Your task to perform on an android device: Open internet settings Image 0: 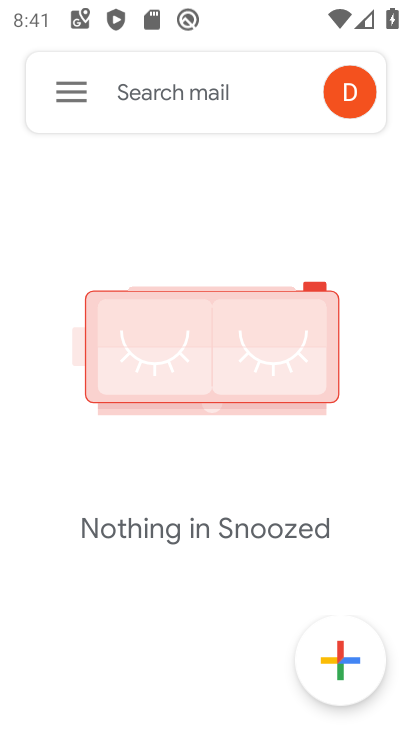
Step 0: press home button
Your task to perform on an android device: Open internet settings Image 1: 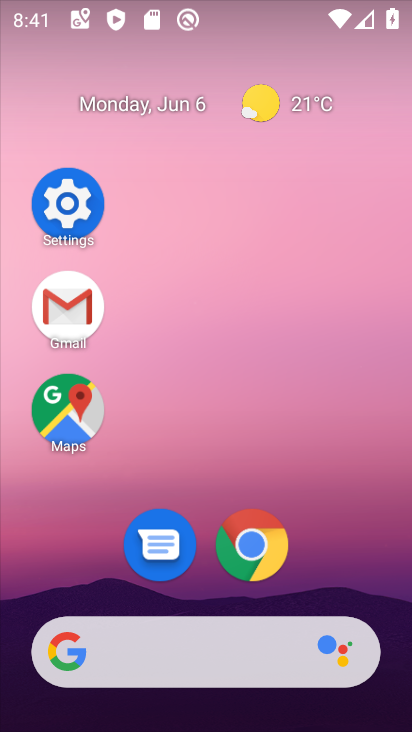
Step 1: click (62, 187)
Your task to perform on an android device: Open internet settings Image 2: 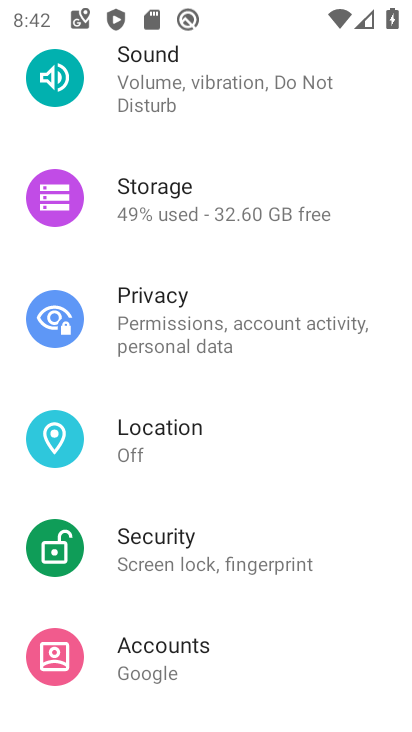
Step 2: drag from (213, 114) to (250, 607)
Your task to perform on an android device: Open internet settings Image 3: 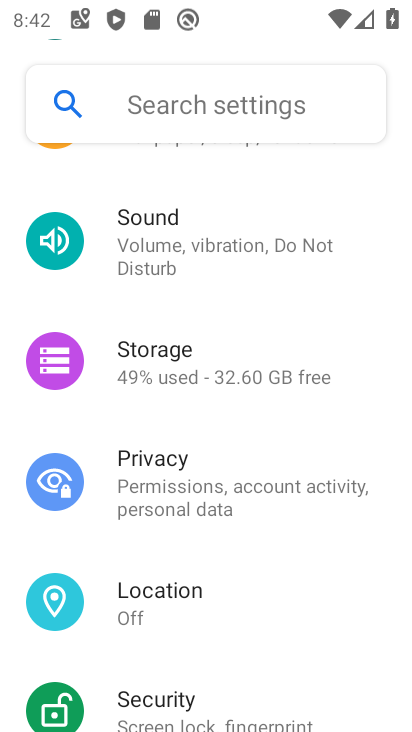
Step 3: drag from (281, 177) to (291, 658)
Your task to perform on an android device: Open internet settings Image 4: 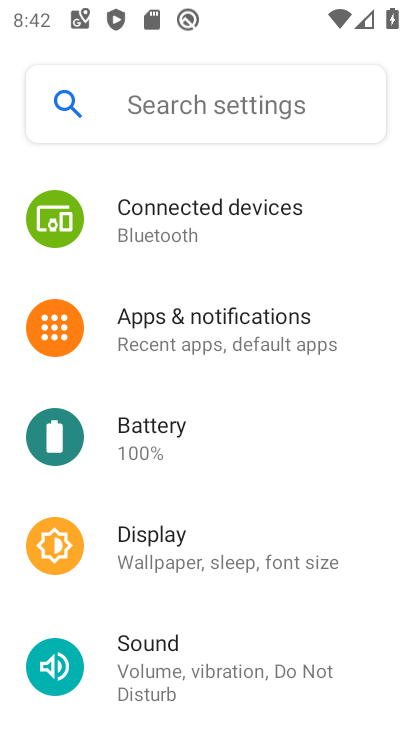
Step 4: drag from (275, 181) to (272, 593)
Your task to perform on an android device: Open internet settings Image 5: 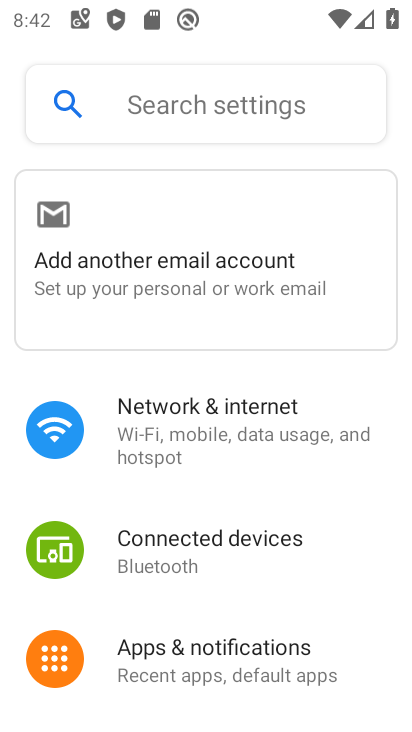
Step 5: click (216, 412)
Your task to perform on an android device: Open internet settings Image 6: 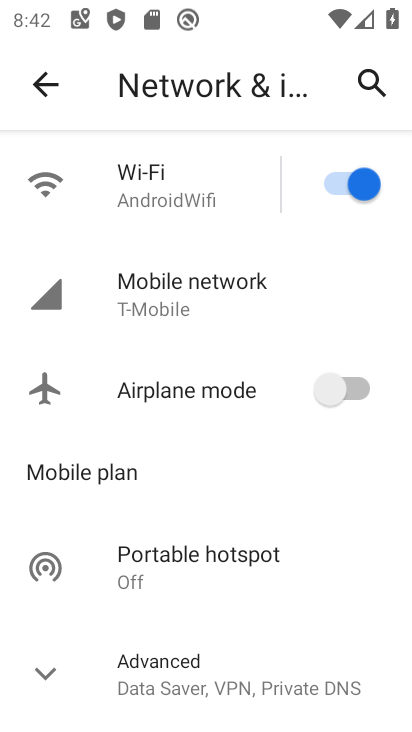
Step 6: task complete